Your task to perform on an android device: add a contact in the contacts app Image 0: 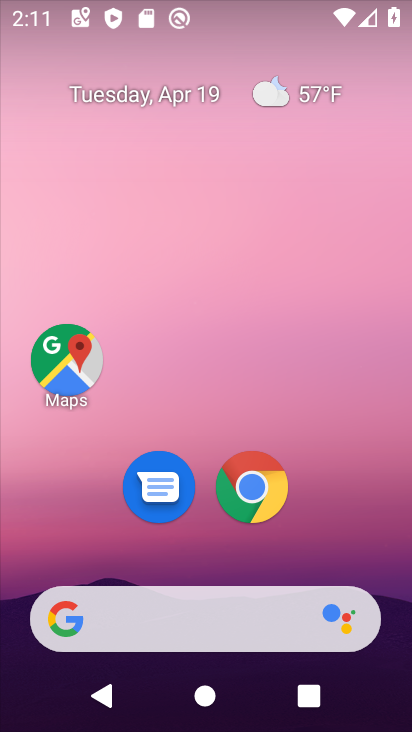
Step 0: drag from (161, 692) to (153, 155)
Your task to perform on an android device: add a contact in the contacts app Image 1: 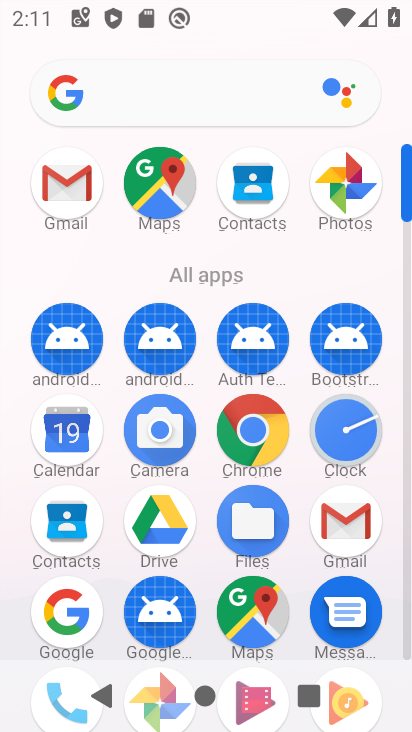
Step 1: click (256, 201)
Your task to perform on an android device: add a contact in the contacts app Image 2: 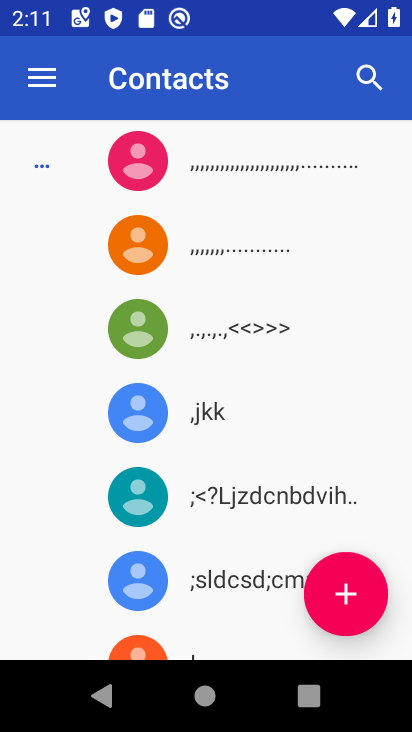
Step 2: click (362, 618)
Your task to perform on an android device: add a contact in the contacts app Image 3: 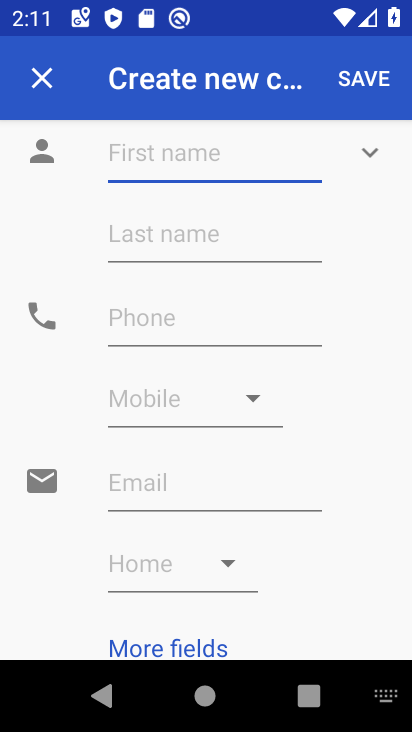
Step 3: type "bc"
Your task to perform on an android device: add a contact in the contacts app Image 4: 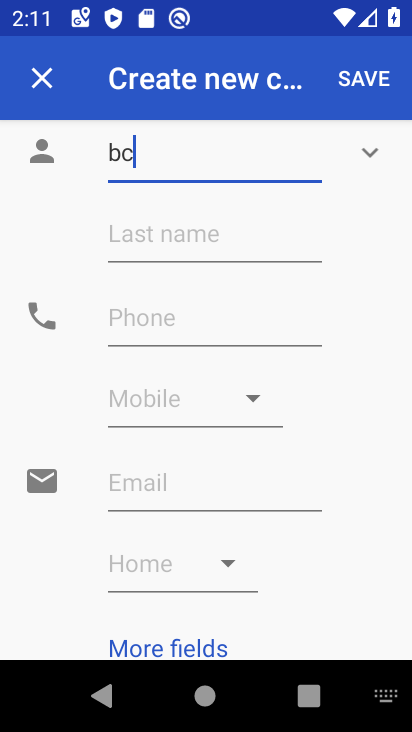
Step 4: type ""
Your task to perform on an android device: add a contact in the contacts app Image 5: 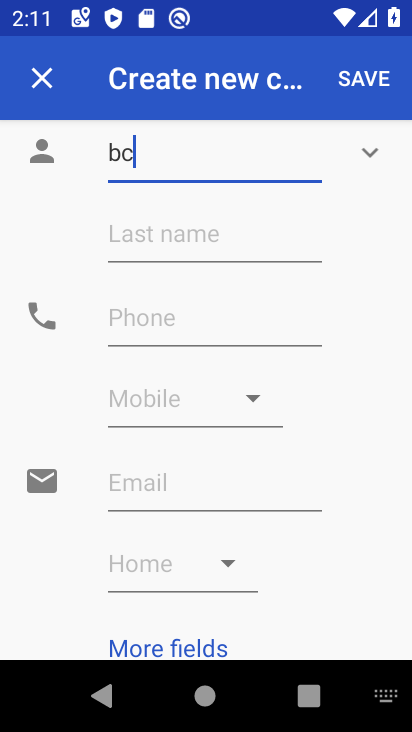
Step 5: click (160, 328)
Your task to perform on an android device: add a contact in the contacts app Image 6: 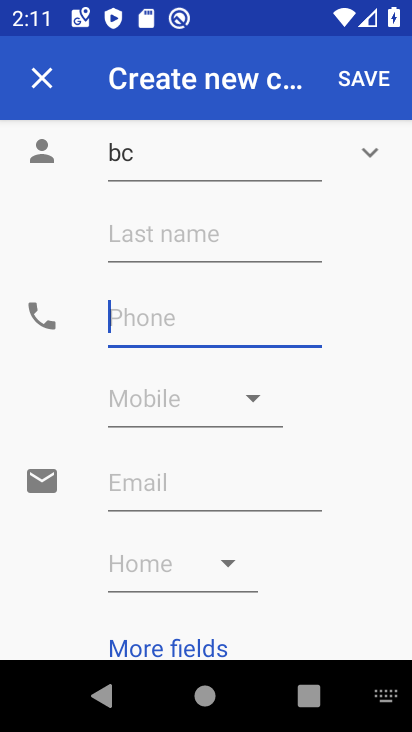
Step 6: type "987654567"
Your task to perform on an android device: add a contact in the contacts app Image 7: 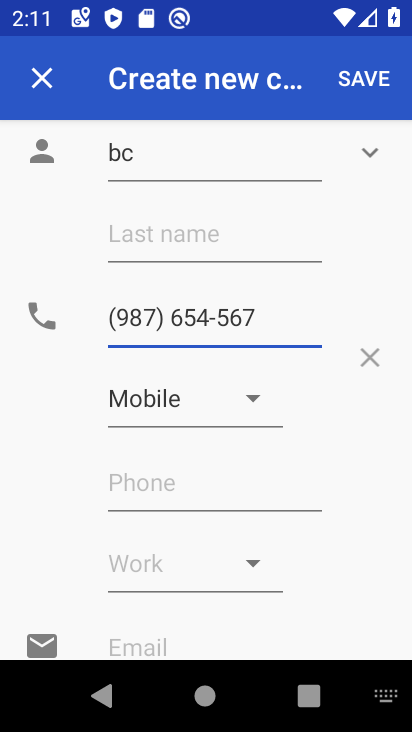
Step 7: click (362, 77)
Your task to perform on an android device: add a contact in the contacts app Image 8: 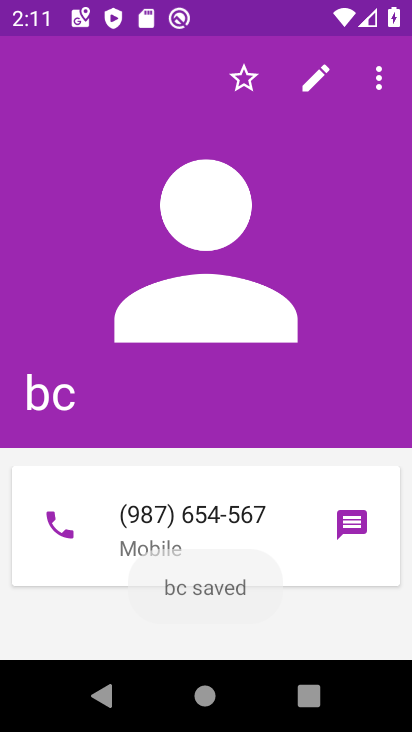
Step 8: task complete